Your task to perform on an android device: open chrome privacy settings Image 0: 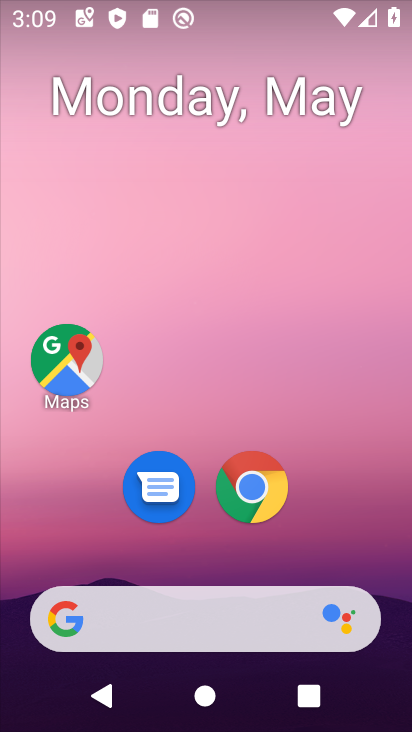
Step 0: drag from (202, 539) to (217, 394)
Your task to perform on an android device: open chrome privacy settings Image 1: 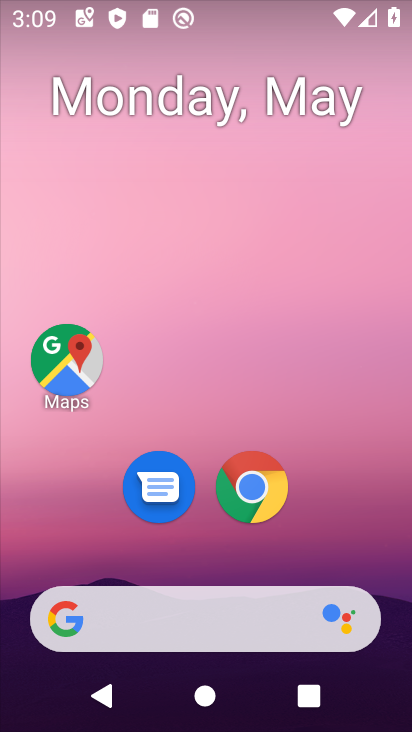
Step 1: drag from (222, 310) to (2, 275)
Your task to perform on an android device: open chrome privacy settings Image 2: 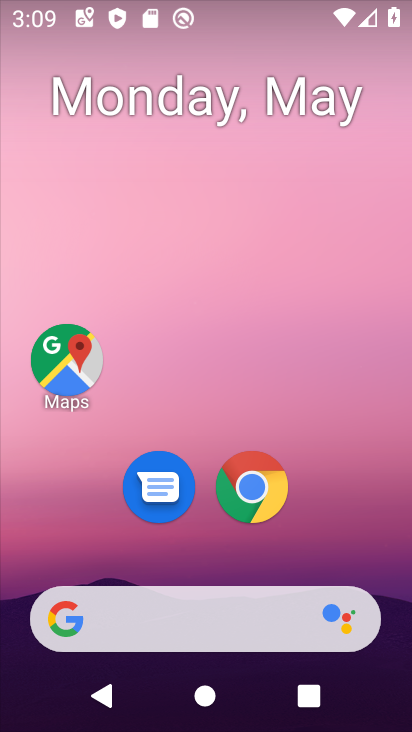
Step 2: drag from (184, 559) to (232, 45)
Your task to perform on an android device: open chrome privacy settings Image 3: 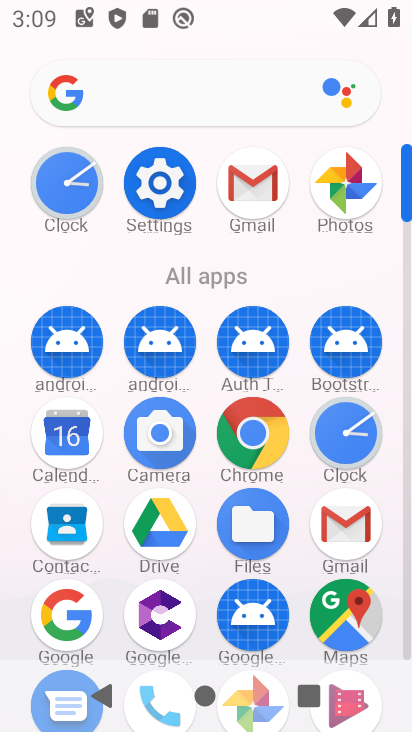
Step 3: click (252, 423)
Your task to perform on an android device: open chrome privacy settings Image 4: 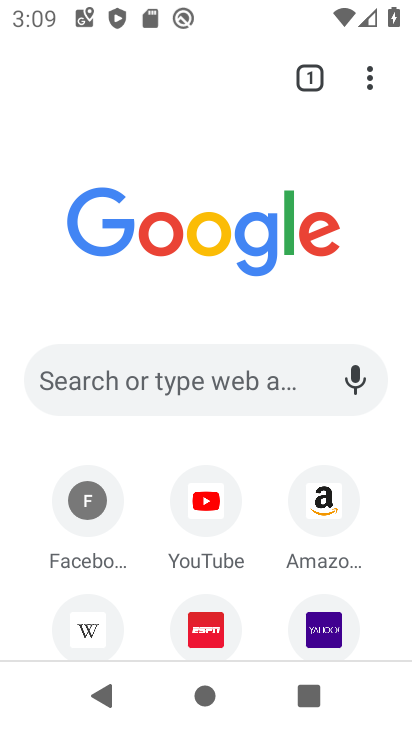
Step 4: click (362, 86)
Your task to perform on an android device: open chrome privacy settings Image 5: 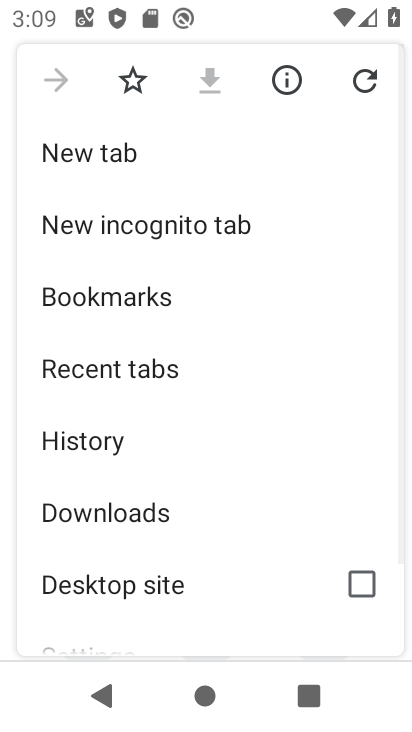
Step 5: drag from (214, 528) to (339, 84)
Your task to perform on an android device: open chrome privacy settings Image 6: 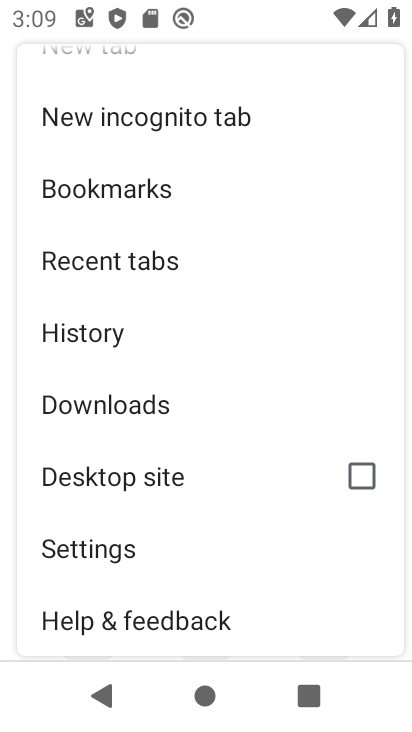
Step 6: click (127, 549)
Your task to perform on an android device: open chrome privacy settings Image 7: 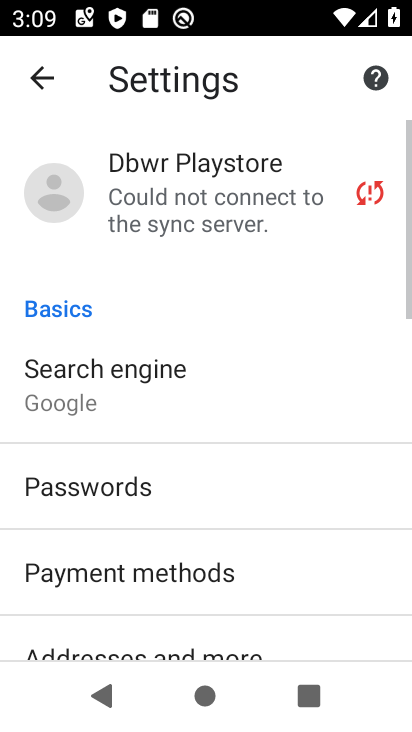
Step 7: drag from (225, 606) to (299, 122)
Your task to perform on an android device: open chrome privacy settings Image 8: 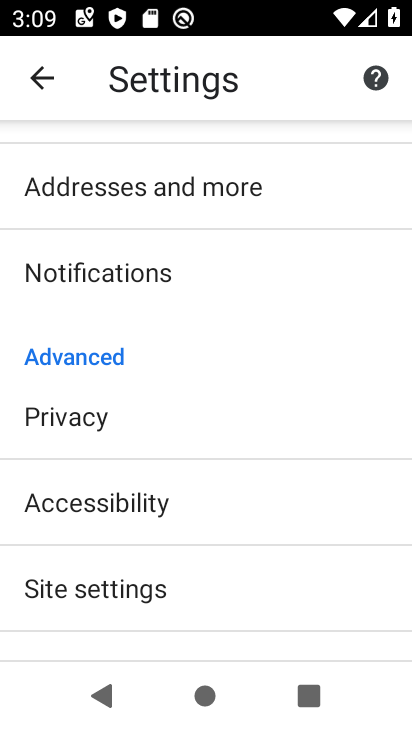
Step 8: drag from (216, 557) to (285, 184)
Your task to perform on an android device: open chrome privacy settings Image 9: 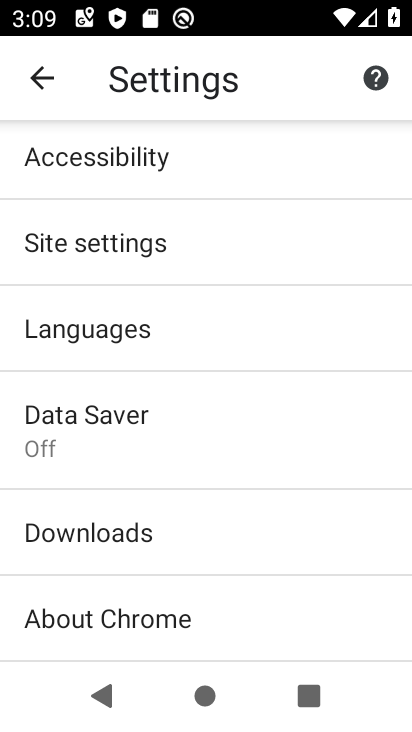
Step 9: drag from (131, 230) to (216, 603)
Your task to perform on an android device: open chrome privacy settings Image 10: 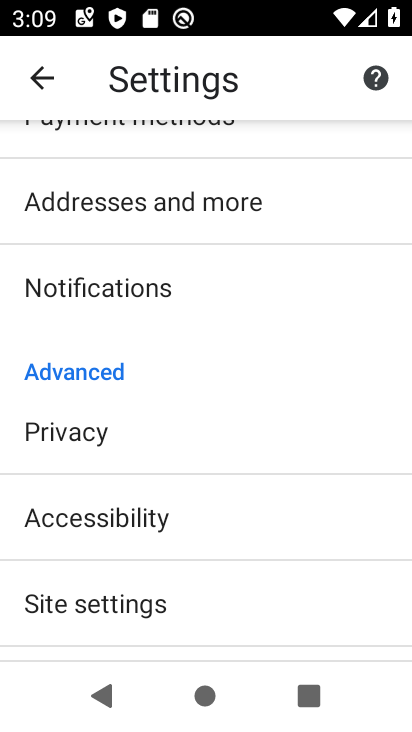
Step 10: click (129, 430)
Your task to perform on an android device: open chrome privacy settings Image 11: 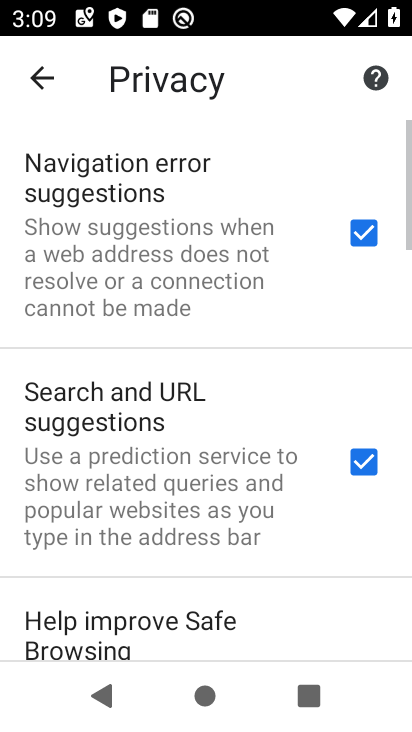
Step 11: task complete